Your task to perform on an android device: turn smart compose on in the gmail app Image 0: 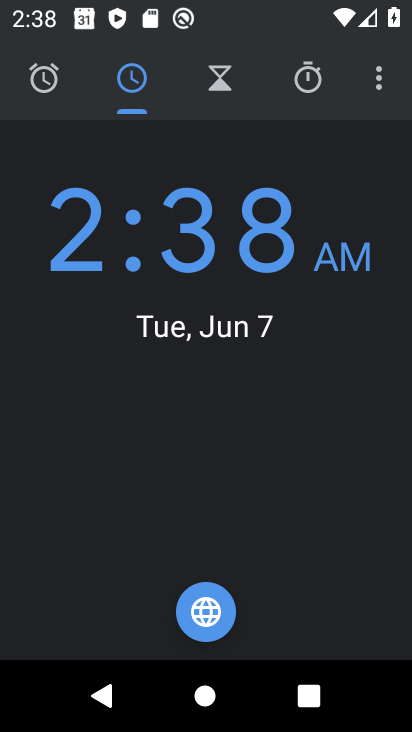
Step 0: press home button
Your task to perform on an android device: turn smart compose on in the gmail app Image 1: 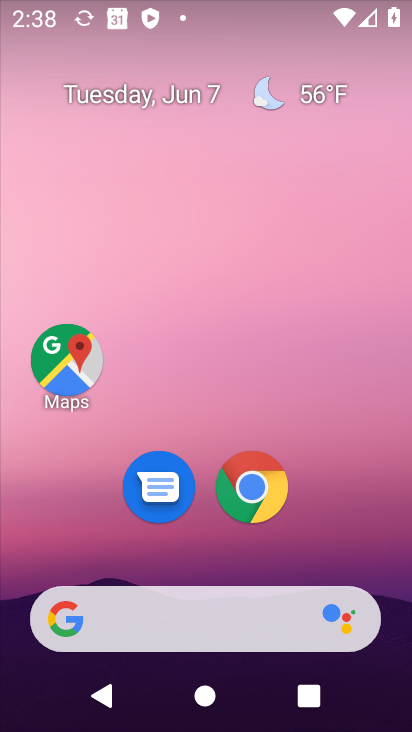
Step 1: drag from (339, 547) to (350, 49)
Your task to perform on an android device: turn smart compose on in the gmail app Image 2: 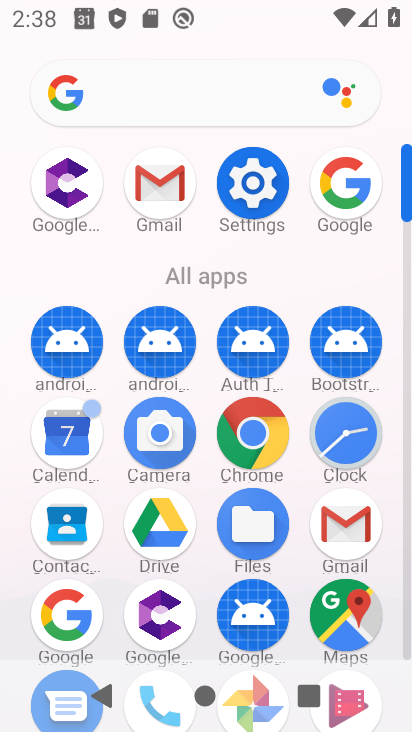
Step 2: click (156, 185)
Your task to perform on an android device: turn smart compose on in the gmail app Image 3: 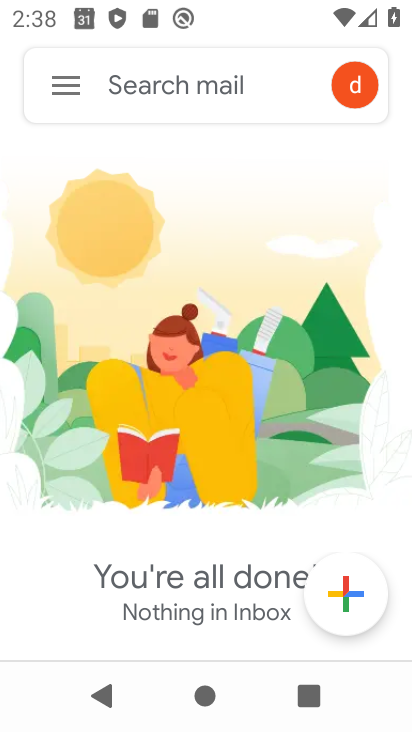
Step 3: click (60, 90)
Your task to perform on an android device: turn smart compose on in the gmail app Image 4: 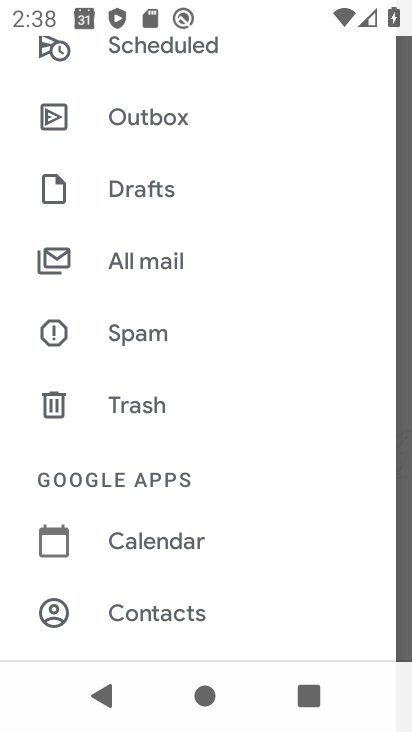
Step 4: drag from (319, 590) to (366, 239)
Your task to perform on an android device: turn smart compose on in the gmail app Image 5: 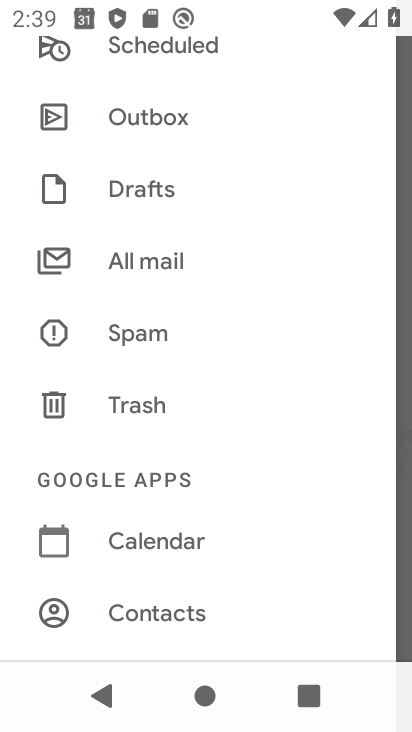
Step 5: drag from (272, 599) to (340, 23)
Your task to perform on an android device: turn smart compose on in the gmail app Image 6: 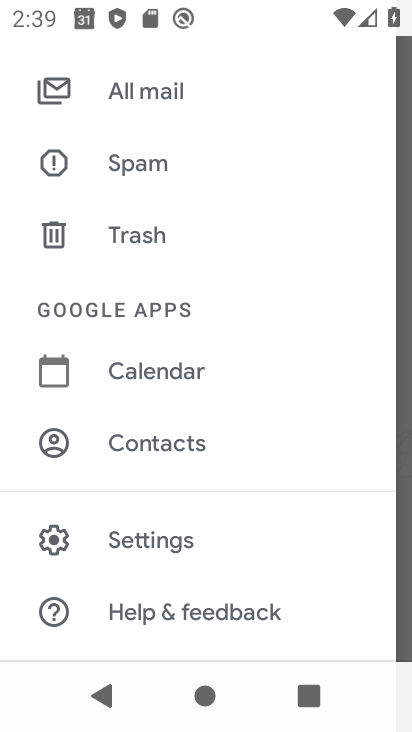
Step 6: click (155, 536)
Your task to perform on an android device: turn smart compose on in the gmail app Image 7: 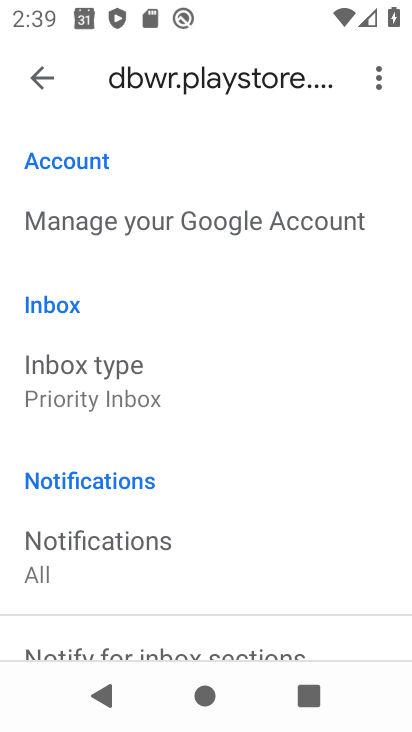
Step 7: task complete